Your task to perform on an android device: turn on bluetooth scan Image 0: 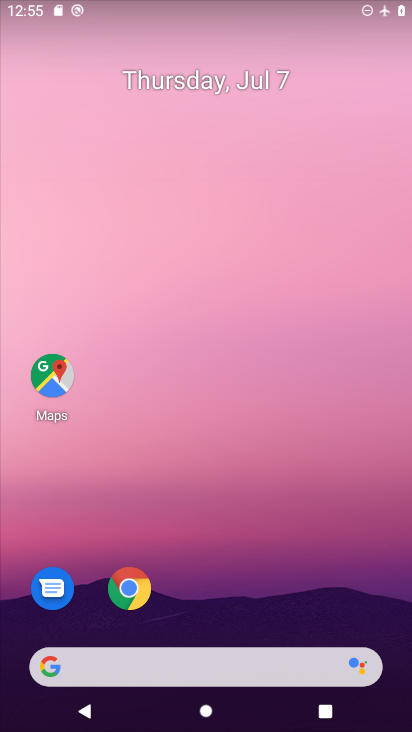
Step 0: drag from (340, 675) to (378, 43)
Your task to perform on an android device: turn on bluetooth scan Image 1: 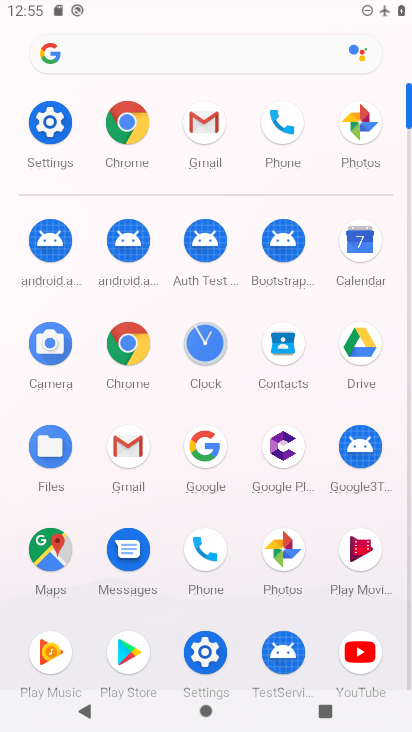
Step 1: click (44, 112)
Your task to perform on an android device: turn on bluetooth scan Image 2: 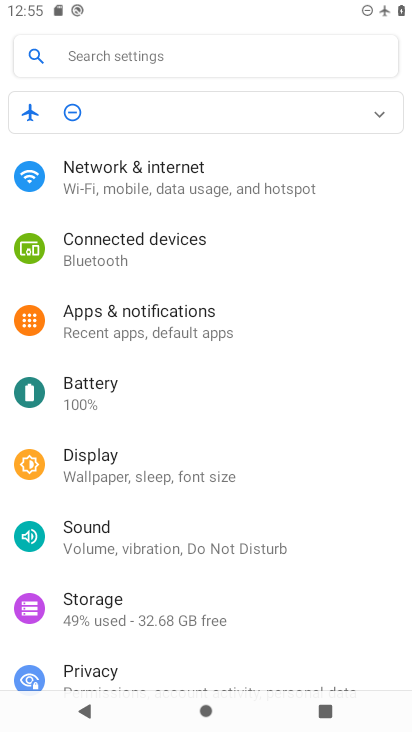
Step 2: drag from (134, 639) to (186, 345)
Your task to perform on an android device: turn on bluetooth scan Image 3: 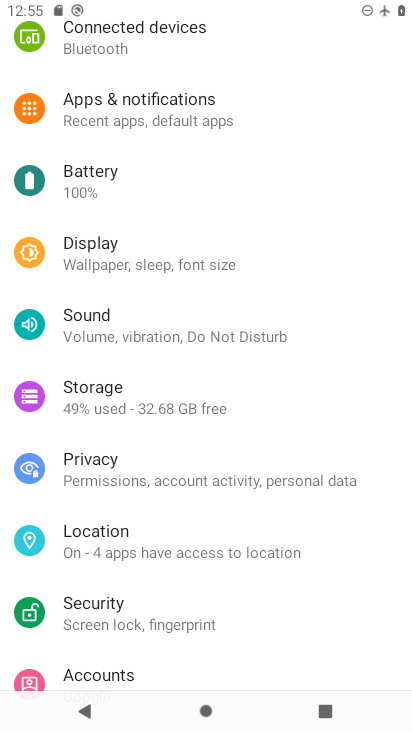
Step 3: click (149, 544)
Your task to perform on an android device: turn on bluetooth scan Image 4: 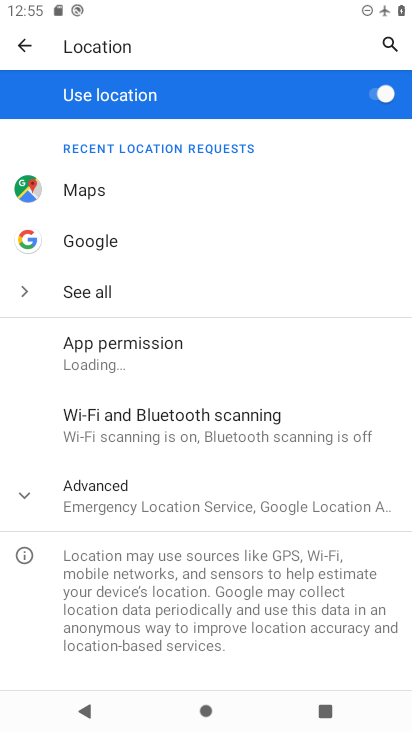
Step 4: click (195, 429)
Your task to perform on an android device: turn on bluetooth scan Image 5: 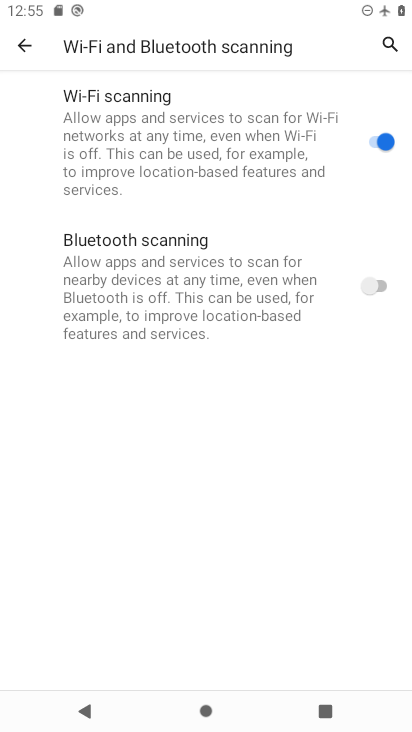
Step 5: task complete